Your task to perform on an android device: toggle location history Image 0: 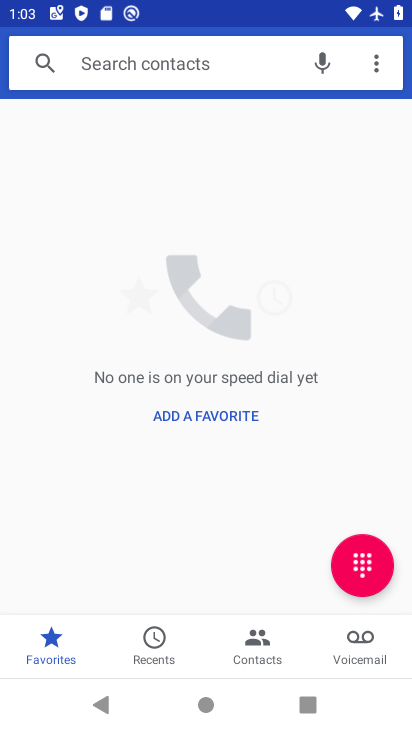
Step 0: press home button
Your task to perform on an android device: toggle location history Image 1: 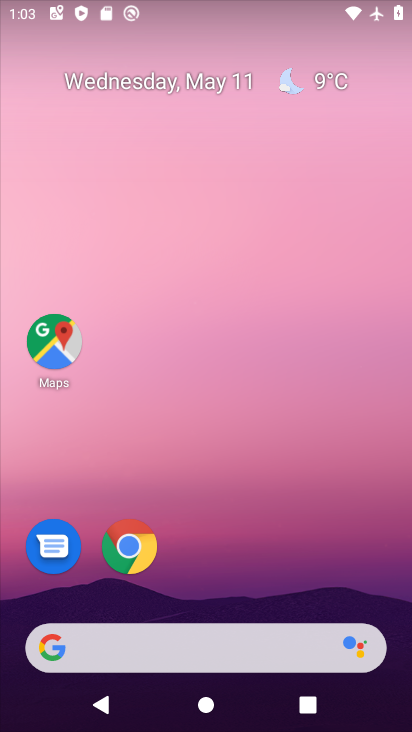
Step 1: drag from (255, 639) to (235, 12)
Your task to perform on an android device: toggle location history Image 2: 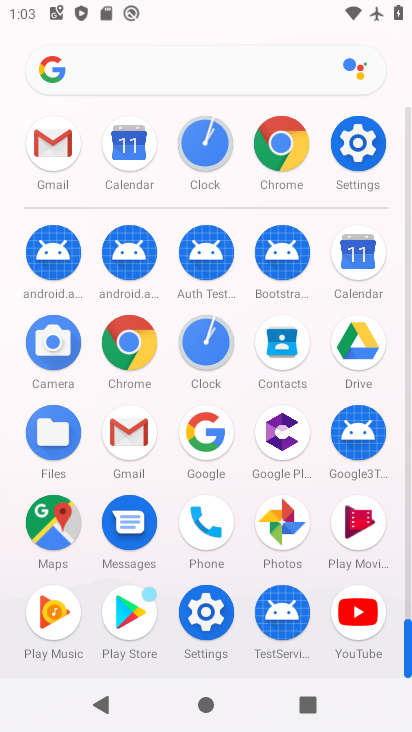
Step 2: click (346, 134)
Your task to perform on an android device: toggle location history Image 3: 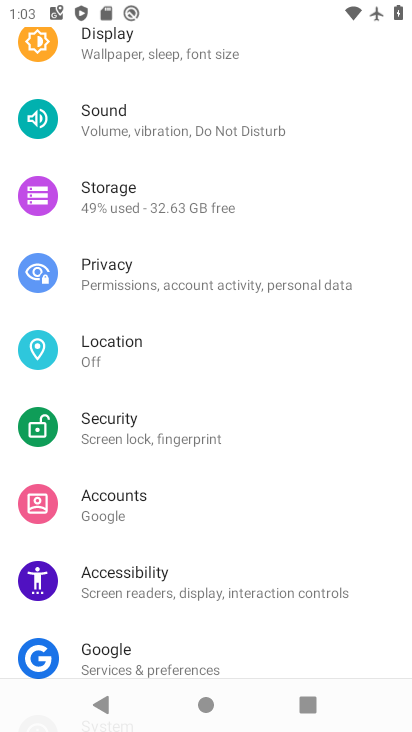
Step 3: click (122, 362)
Your task to perform on an android device: toggle location history Image 4: 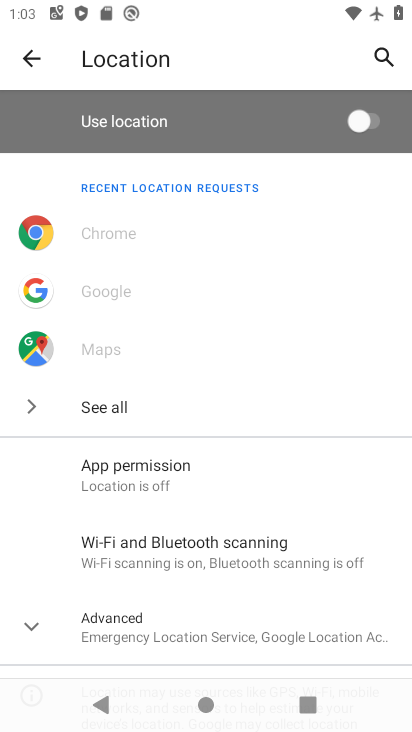
Step 4: drag from (237, 611) to (254, 110)
Your task to perform on an android device: toggle location history Image 5: 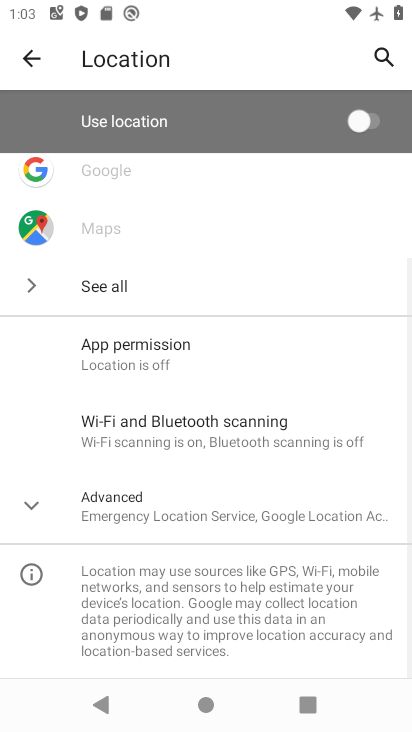
Step 5: click (192, 508)
Your task to perform on an android device: toggle location history Image 6: 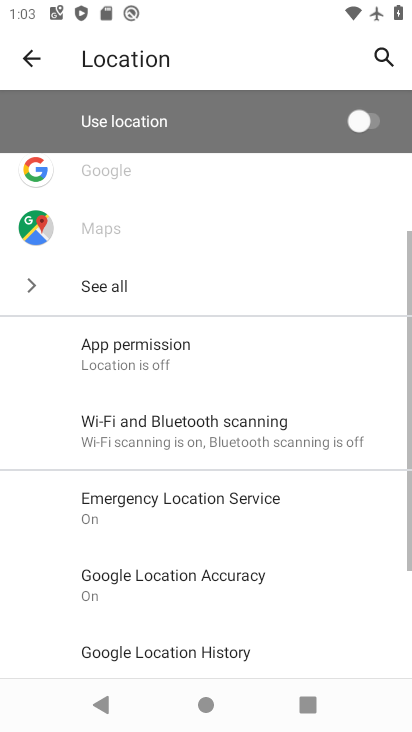
Step 6: drag from (265, 638) to (268, 230)
Your task to perform on an android device: toggle location history Image 7: 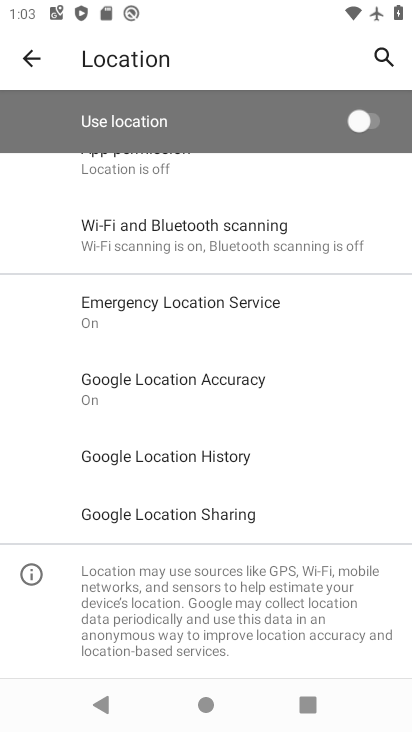
Step 7: click (210, 454)
Your task to perform on an android device: toggle location history Image 8: 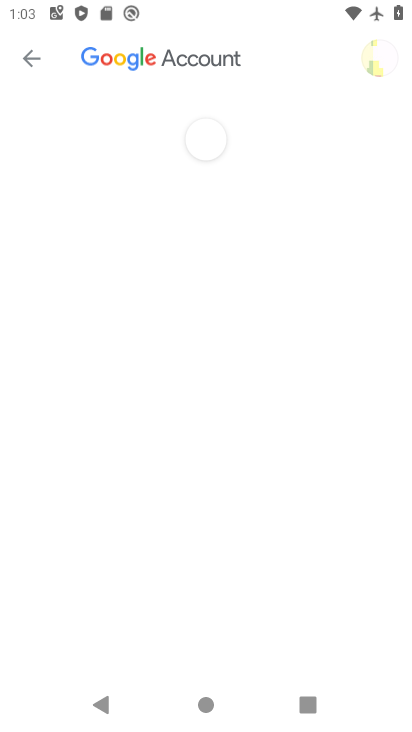
Step 8: drag from (247, 621) to (286, 175)
Your task to perform on an android device: toggle location history Image 9: 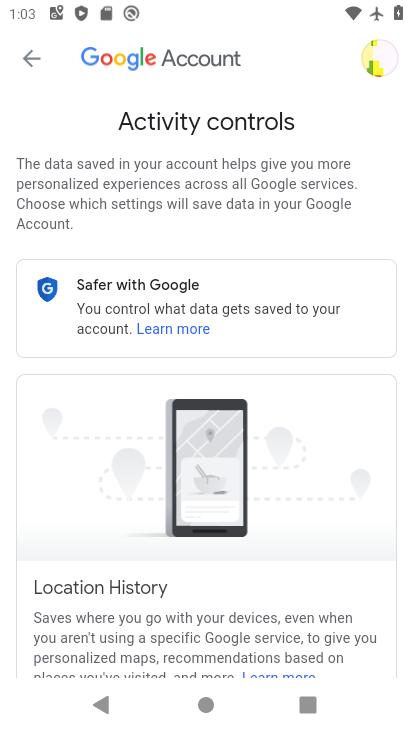
Step 9: drag from (264, 579) to (296, 131)
Your task to perform on an android device: toggle location history Image 10: 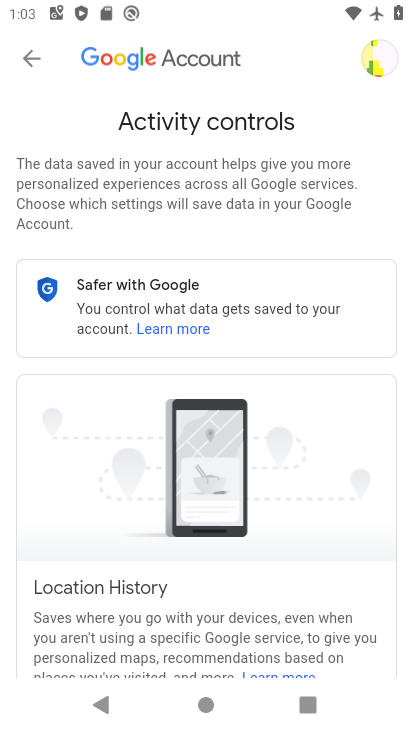
Step 10: drag from (322, 631) to (322, 154)
Your task to perform on an android device: toggle location history Image 11: 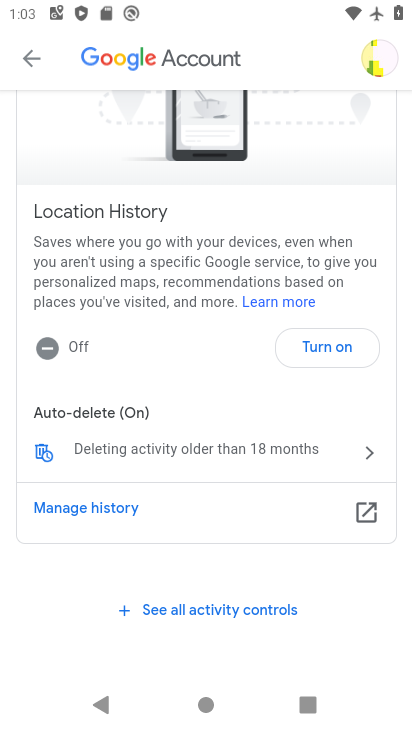
Step 11: click (327, 340)
Your task to perform on an android device: toggle location history Image 12: 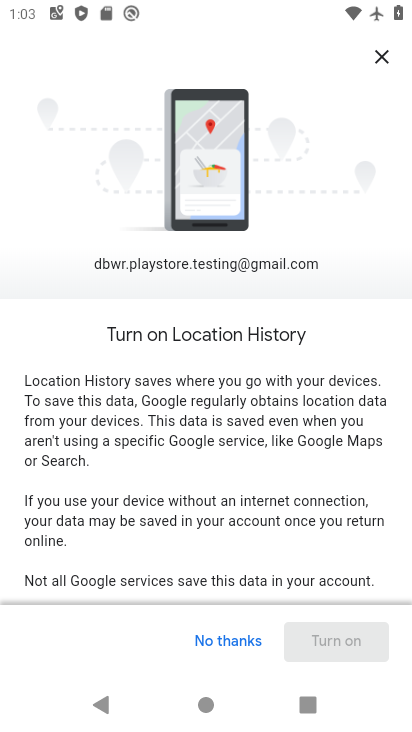
Step 12: drag from (345, 573) to (372, 47)
Your task to perform on an android device: toggle location history Image 13: 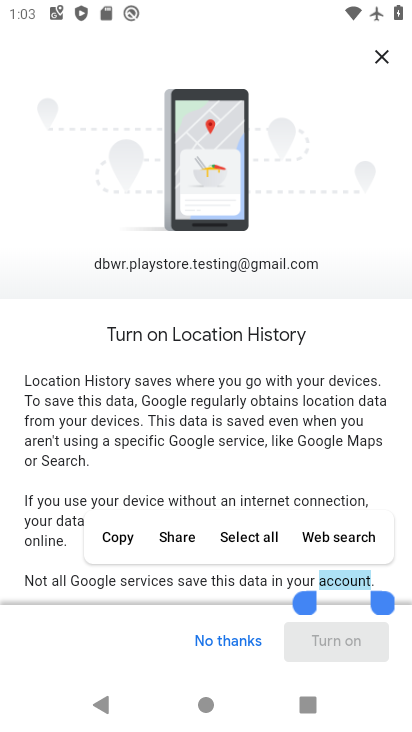
Step 13: drag from (257, 524) to (255, 473)
Your task to perform on an android device: toggle location history Image 14: 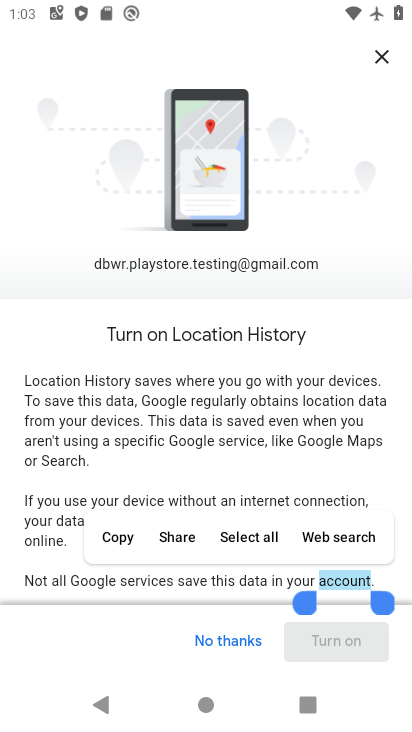
Step 14: drag from (252, 448) to (258, 37)
Your task to perform on an android device: toggle location history Image 15: 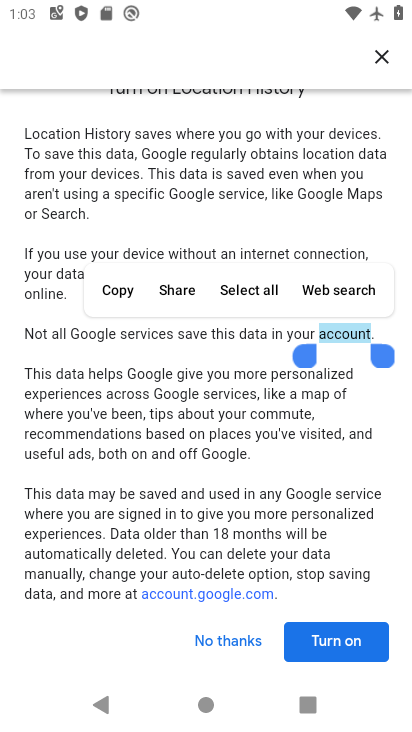
Step 15: click (322, 628)
Your task to perform on an android device: toggle location history Image 16: 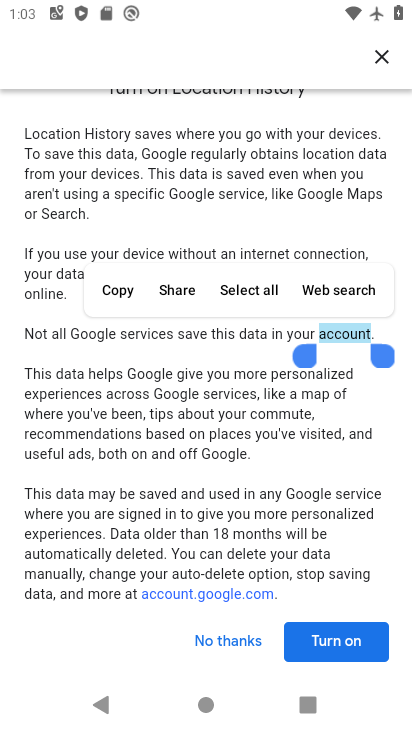
Step 16: click (318, 636)
Your task to perform on an android device: toggle location history Image 17: 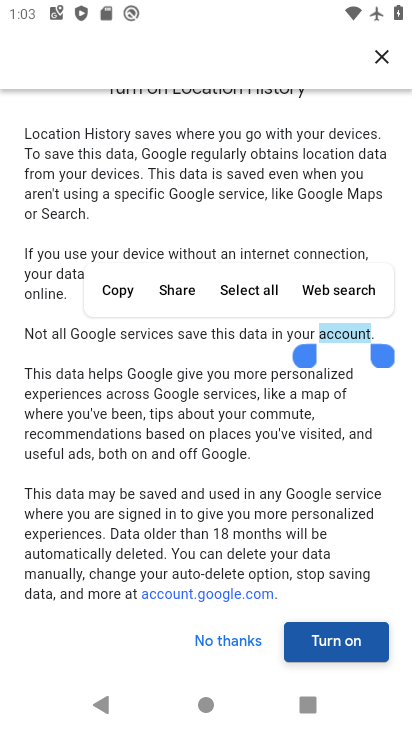
Step 17: click (359, 641)
Your task to perform on an android device: toggle location history Image 18: 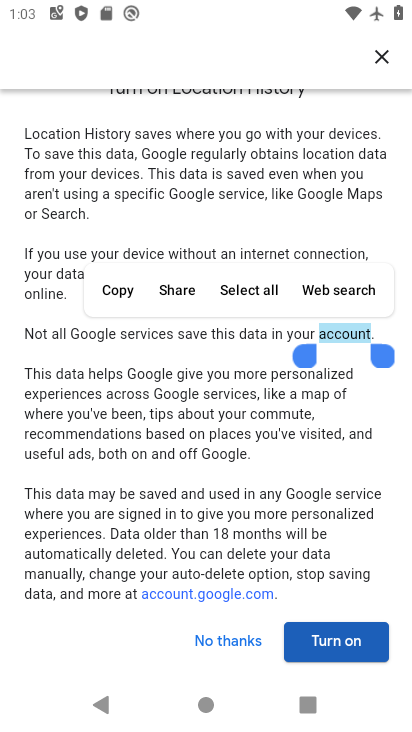
Step 18: click (358, 642)
Your task to perform on an android device: toggle location history Image 19: 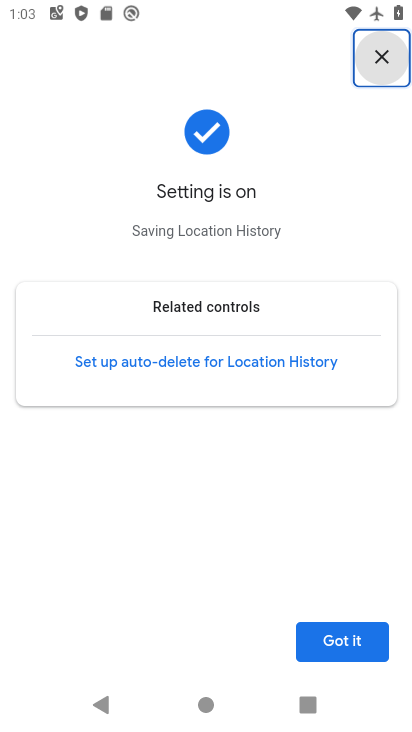
Step 19: task complete